Your task to perform on an android device: What's the weather today? Image 0: 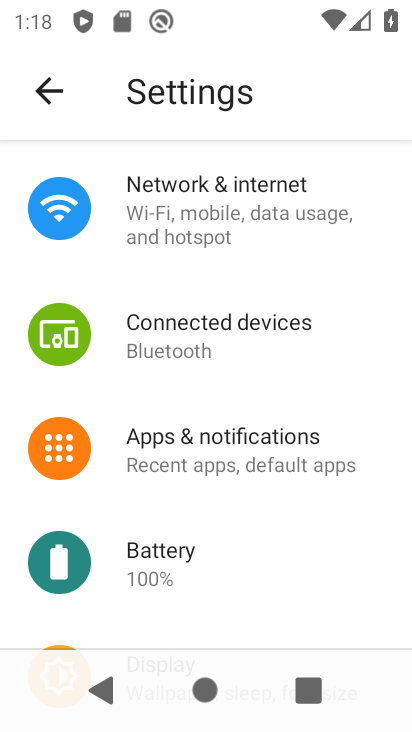
Step 0: press home button
Your task to perform on an android device: What's the weather today? Image 1: 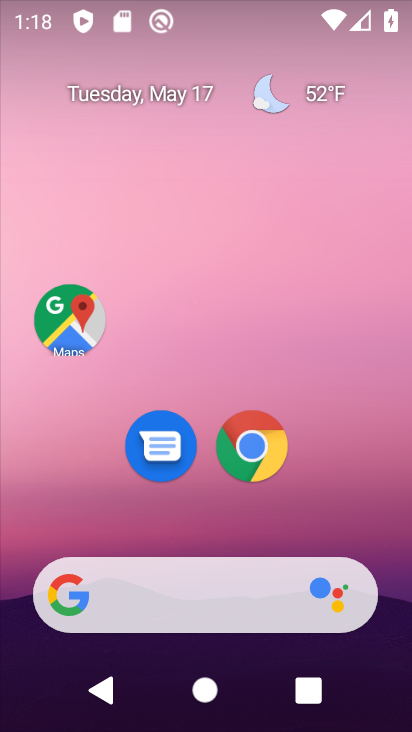
Step 1: click (328, 87)
Your task to perform on an android device: What's the weather today? Image 2: 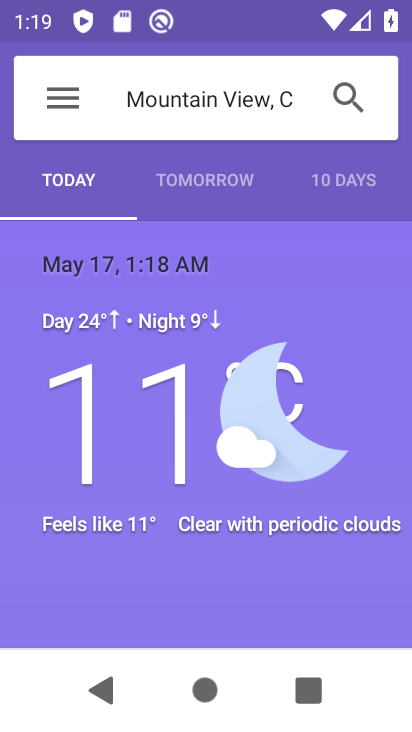
Step 2: task complete